Your task to perform on an android device: open the mobile data screen to see how much data has been used Image 0: 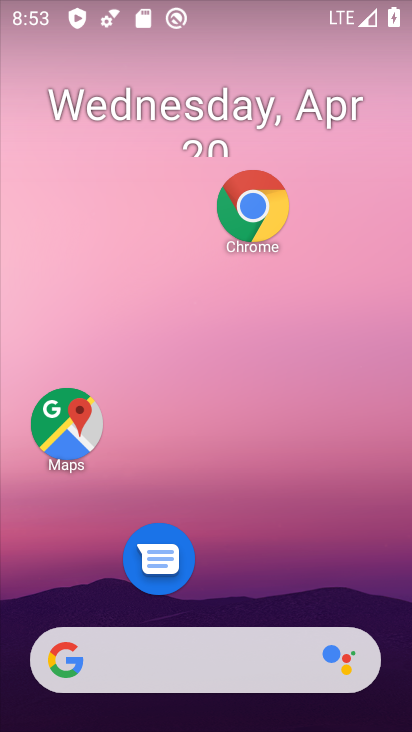
Step 0: drag from (270, 603) to (208, 14)
Your task to perform on an android device: open the mobile data screen to see how much data has been used Image 1: 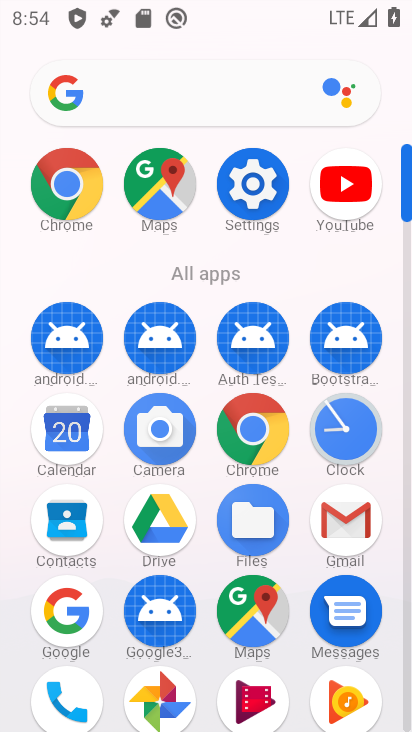
Step 1: click (230, 188)
Your task to perform on an android device: open the mobile data screen to see how much data has been used Image 2: 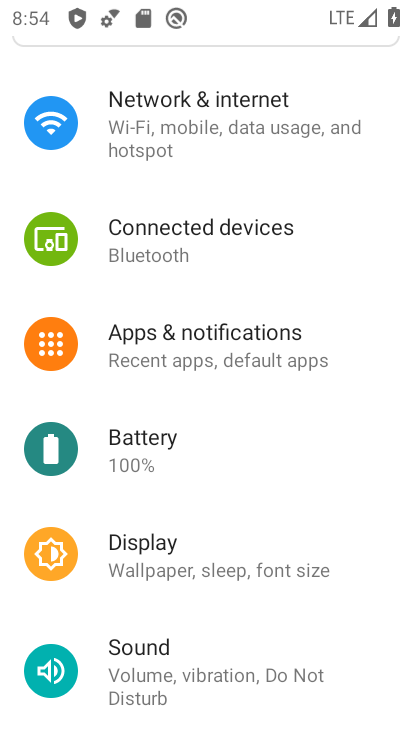
Step 2: click (165, 149)
Your task to perform on an android device: open the mobile data screen to see how much data has been used Image 3: 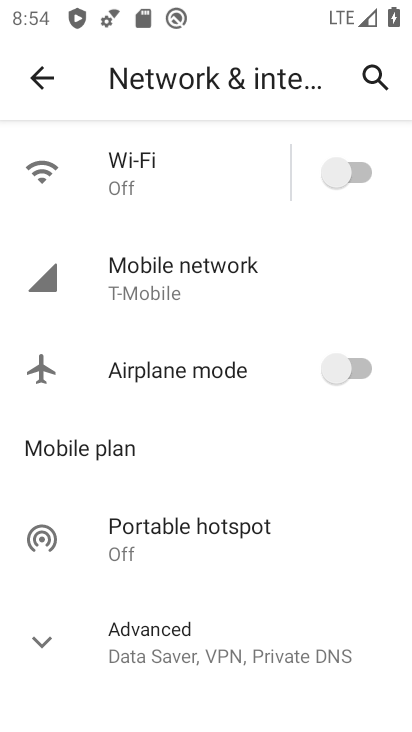
Step 3: click (202, 284)
Your task to perform on an android device: open the mobile data screen to see how much data has been used Image 4: 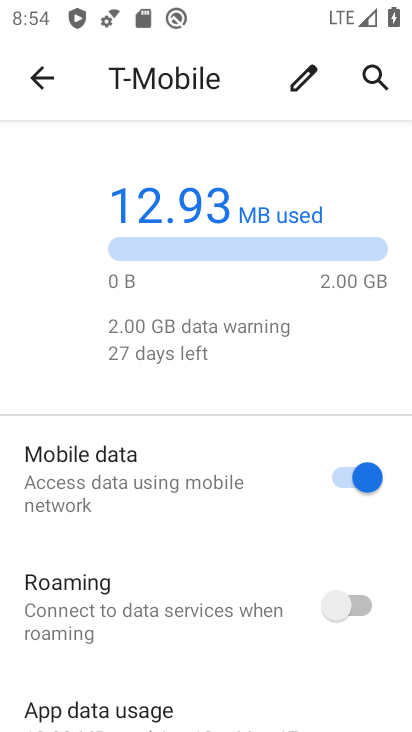
Step 4: click (113, 711)
Your task to perform on an android device: open the mobile data screen to see how much data has been used Image 5: 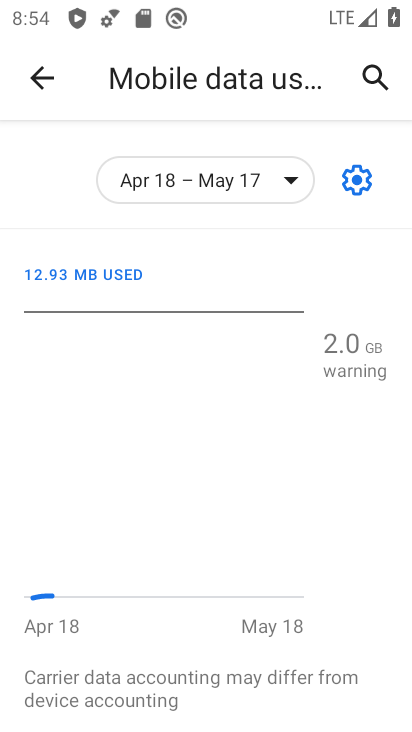
Step 5: task complete